Your task to perform on an android device: turn on location history Image 0: 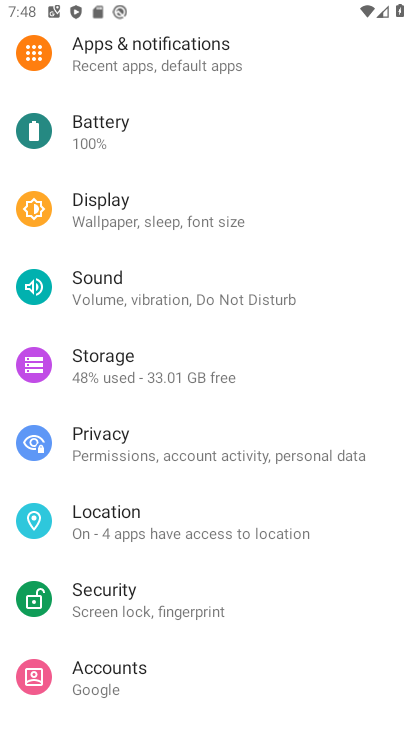
Step 0: click (97, 515)
Your task to perform on an android device: turn on location history Image 1: 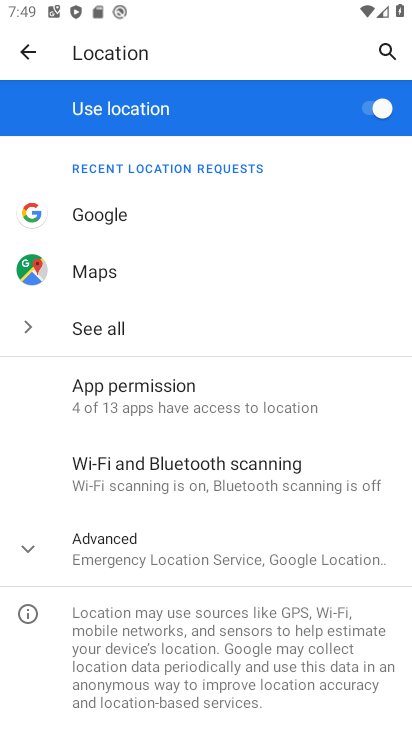
Step 1: click (171, 519)
Your task to perform on an android device: turn on location history Image 2: 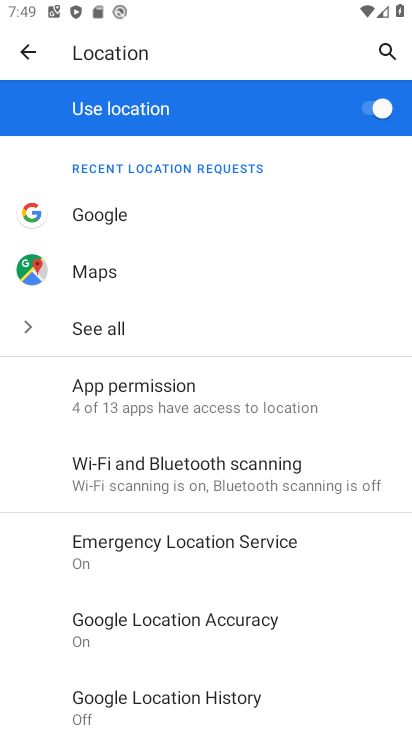
Step 2: click (210, 689)
Your task to perform on an android device: turn on location history Image 3: 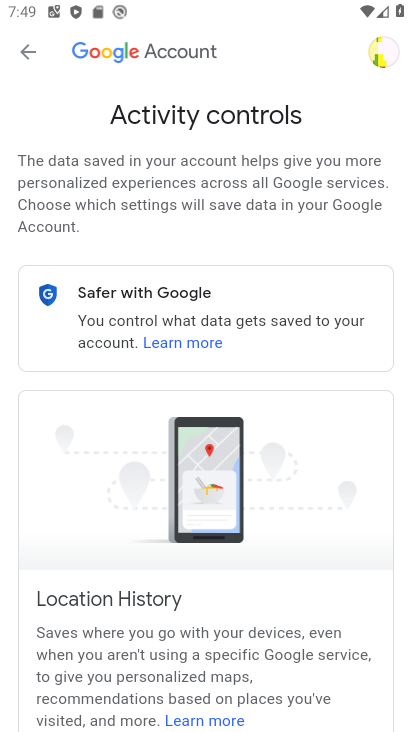
Step 3: task complete